Your task to perform on an android device: Go to privacy settings Image 0: 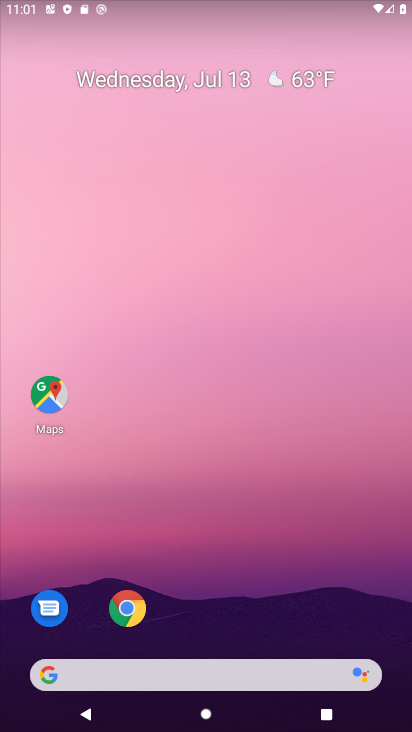
Step 0: press home button
Your task to perform on an android device: Go to privacy settings Image 1: 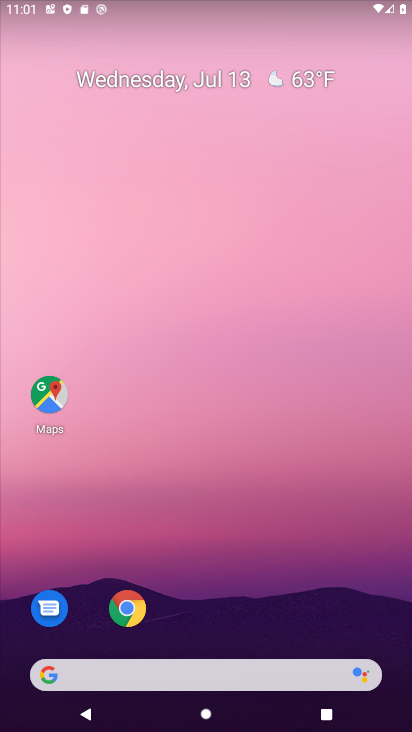
Step 1: drag from (242, 600) to (247, 129)
Your task to perform on an android device: Go to privacy settings Image 2: 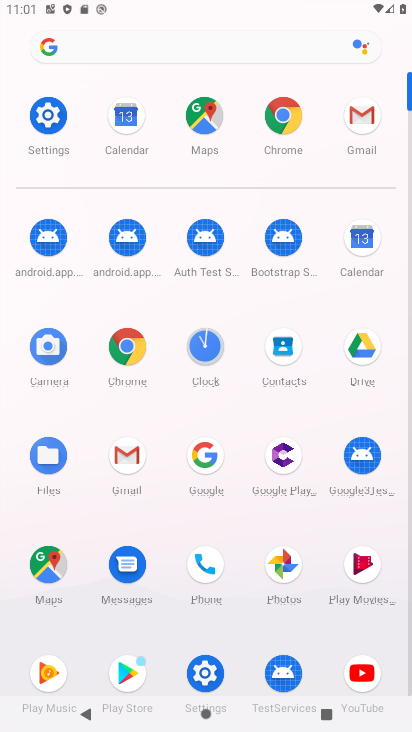
Step 2: click (48, 116)
Your task to perform on an android device: Go to privacy settings Image 3: 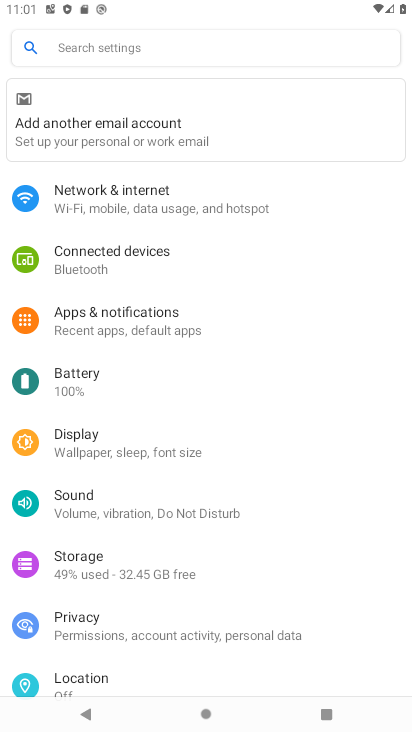
Step 3: click (118, 624)
Your task to perform on an android device: Go to privacy settings Image 4: 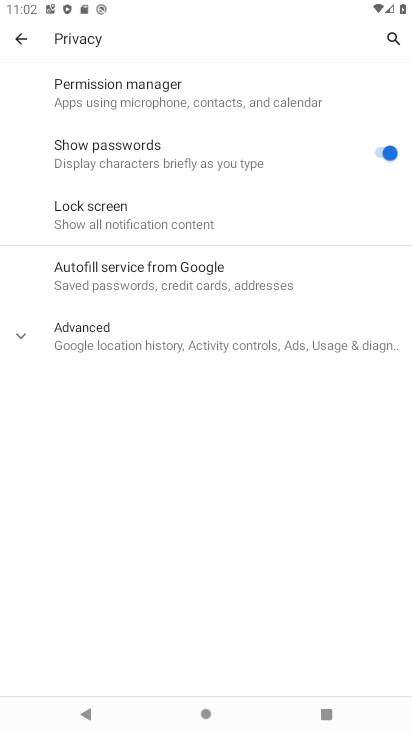
Step 4: task complete